Your task to perform on an android device: toggle data saver in the chrome app Image 0: 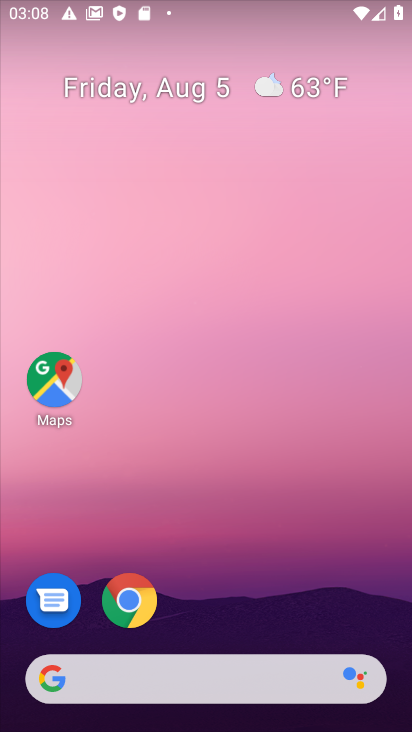
Step 0: click (129, 602)
Your task to perform on an android device: toggle data saver in the chrome app Image 1: 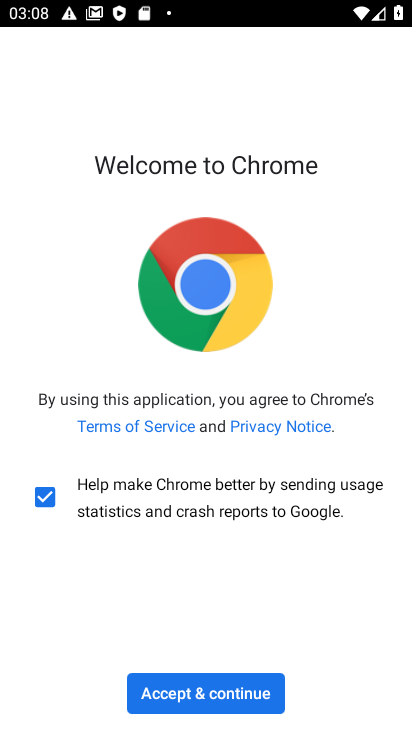
Step 1: click (197, 699)
Your task to perform on an android device: toggle data saver in the chrome app Image 2: 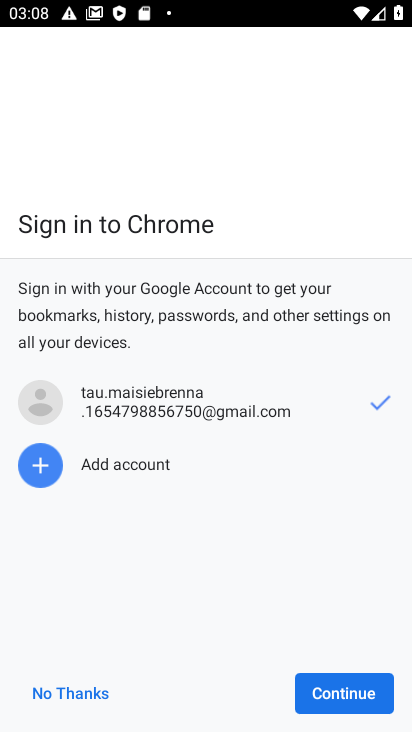
Step 2: click (329, 693)
Your task to perform on an android device: toggle data saver in the chrome app Image 3: 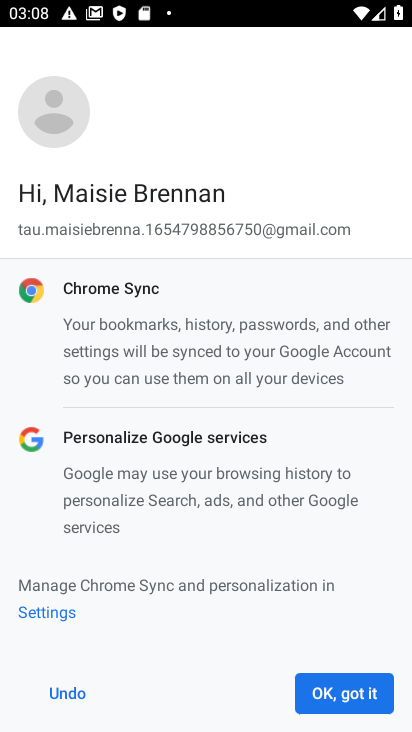
Step 3: click (329, 693)
Your task to perform on an android device: toggle data saver in the chrome app Image 4: 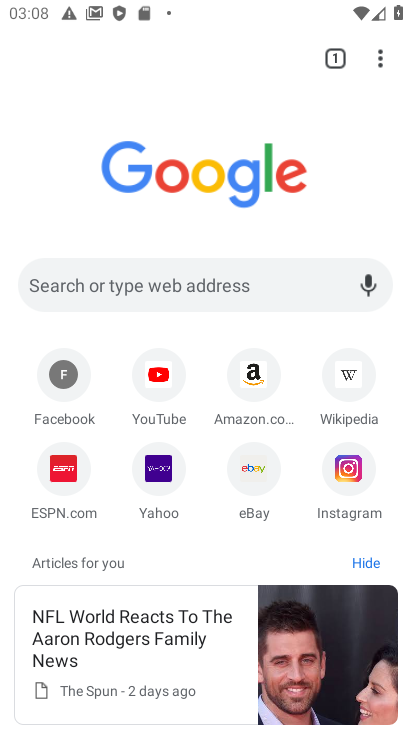
Step 4: click (380, 60)
Your task to perform on an android device: toggle data saver in the chrome app Image 5: 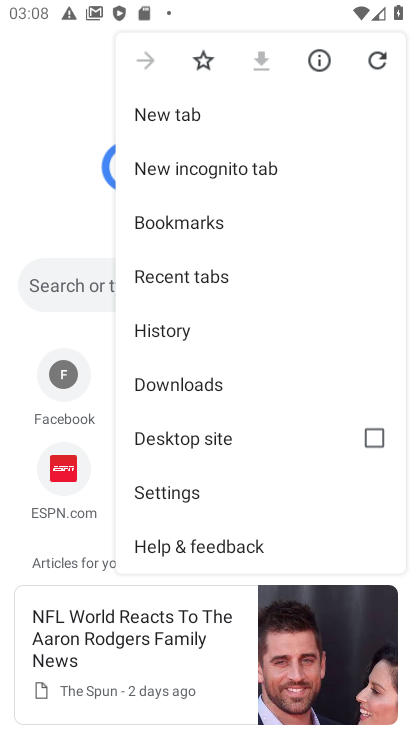
Step 5: click (170, 491)
Your task to perform on an android device: toggle data saver in the chrome app Image 6: 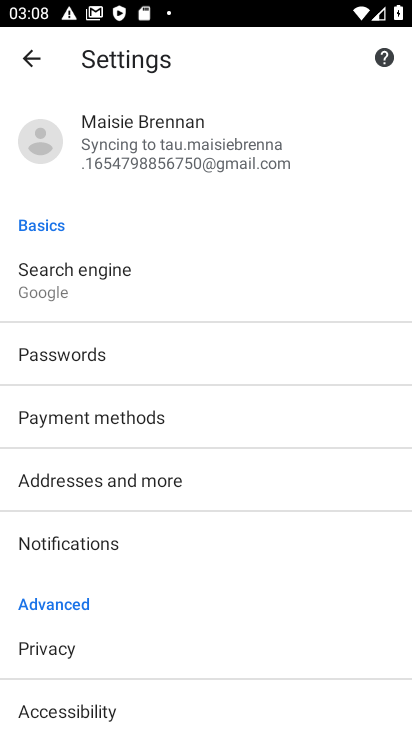
Step 6: drag from (122, 619) to (164, 440)
Your task to perform on an android device: toggle data saver in the chrome app Image 7: 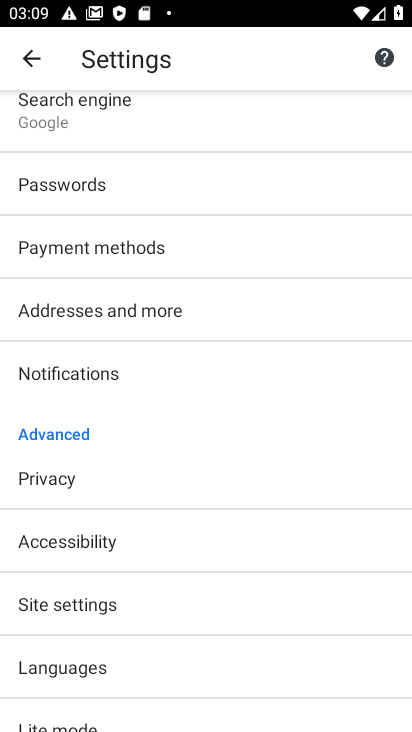
Step 7: drag from (138, 603) to (205, 496)
Your task to perform on an android device: toggle data saver in the chrome app Image 8: 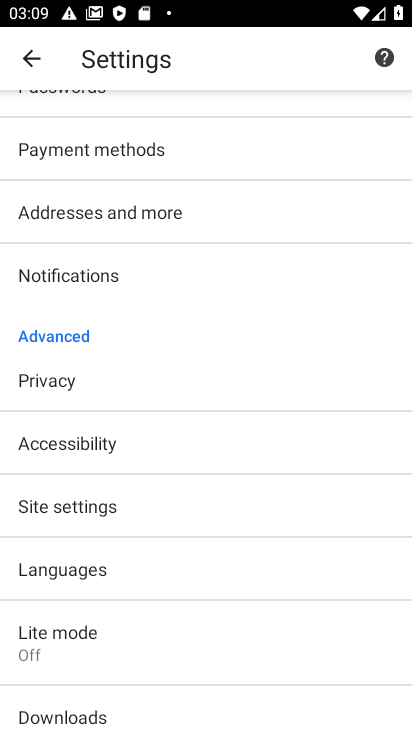
Step 8: click (75, 630)
Your task to perform on an android device: toggle data saver in the chrome app Image 9: 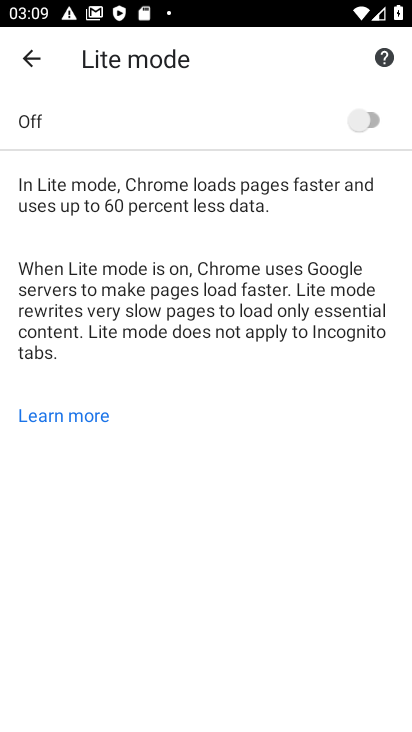
Step 9: click (366, 112)
Your task to perform on an android device: toggle data saver in the chrome app Image 10: 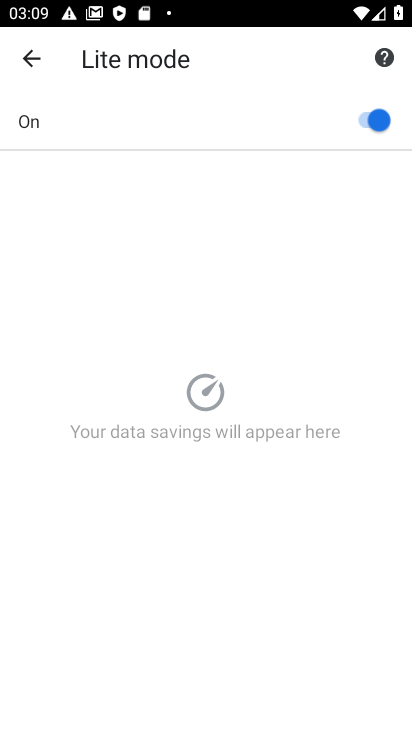
Step 10: task complete